Your task to perform on an android device: turn on improve location accuracy Image 0: 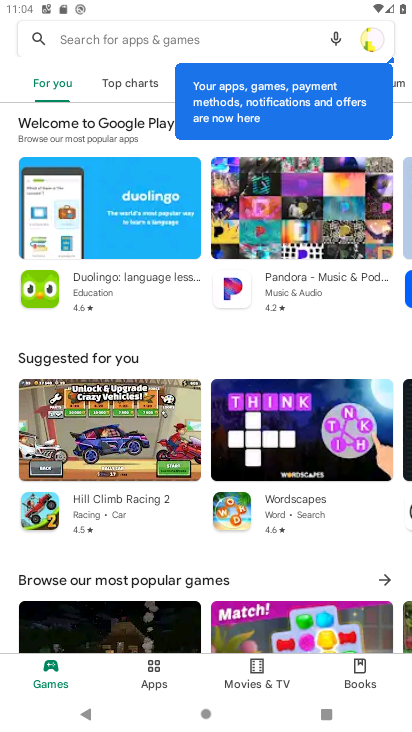
Step 0: press home button
Your task to perform on an android device: turn on improve location accuracy Image 1: 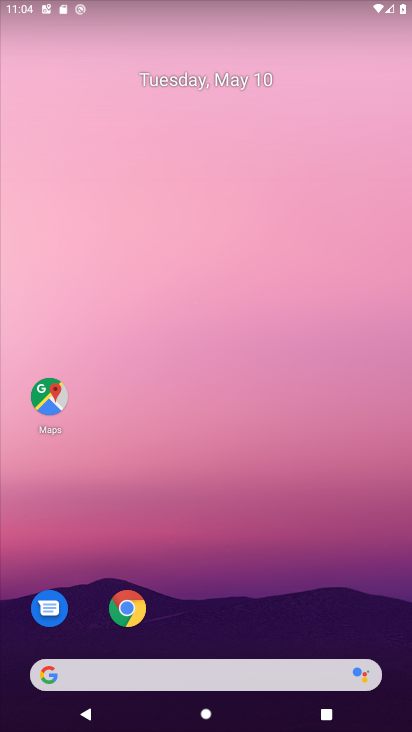
Step 1: drag from (228, 664) to (209, 83)
Your task to perform on an android device: turn on improve location accuracy Image 2: 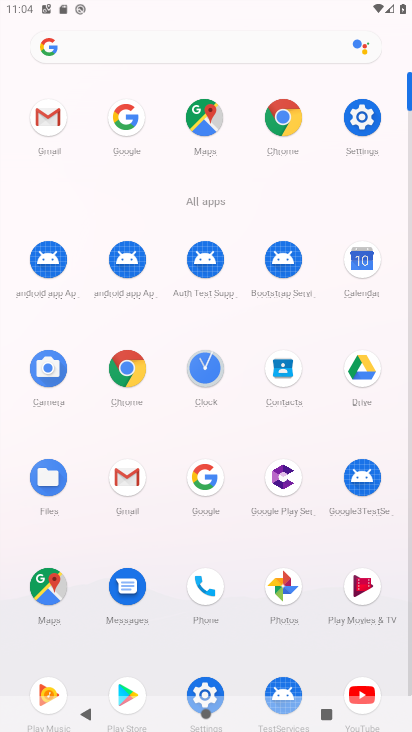
Step 2: click (354, 128)
Your task to perform on an android device: turn on improve location accuracy Image 3: 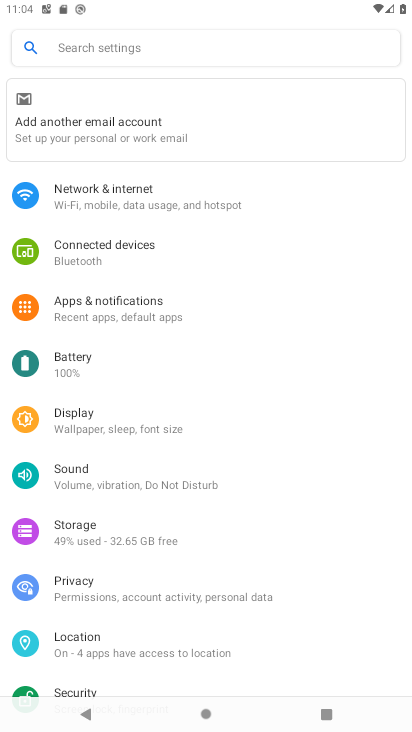
Step 3: click (164, 642)
Your task to perform on an android device: turn on improve location accuracy Image 4: 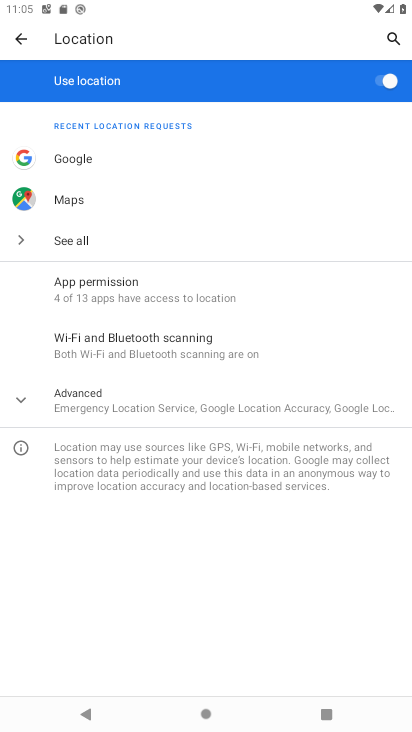
Step 4: click (143, 396)
Your task to perform on an android device: turn on improve location accuracy Image 5: 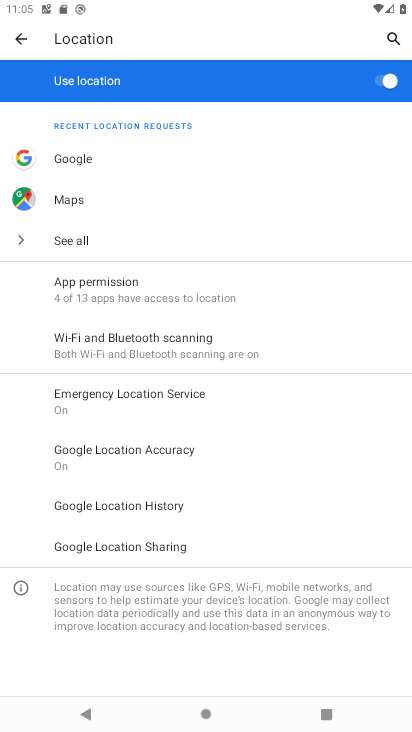
Step 5: click (181, 460)
Your task to perform on an android device: turn on improve location accuracy Image 6: 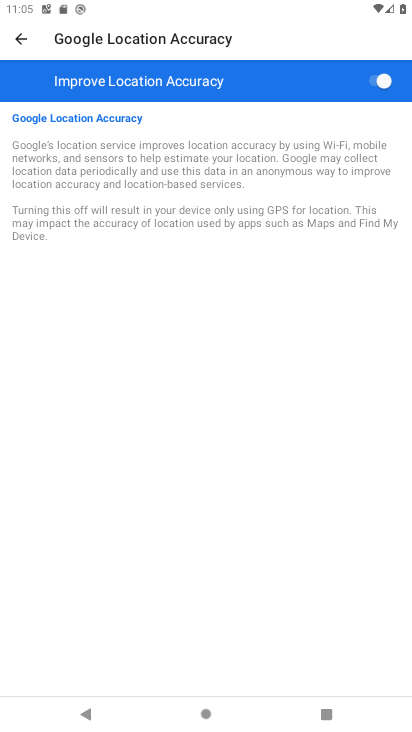
Step 6: task complete